Your task to perform on an android device: Set the phone to "Do not disturb". Image 0: 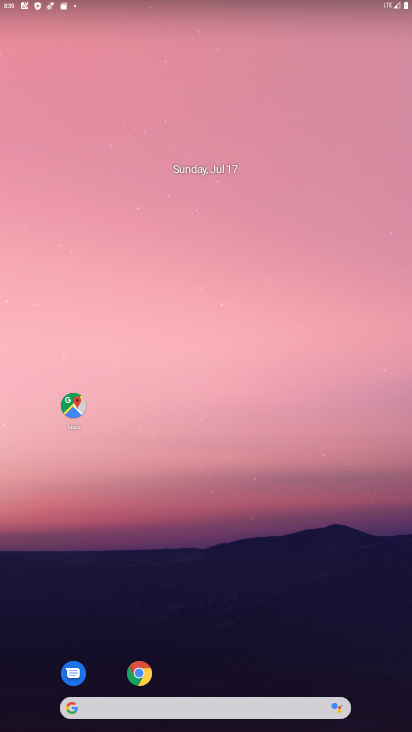
Step 0: drag from (364, 3) to (268, 556)
Your task to perform on an android device: Set the phone to "Do not disturb". Image 1: 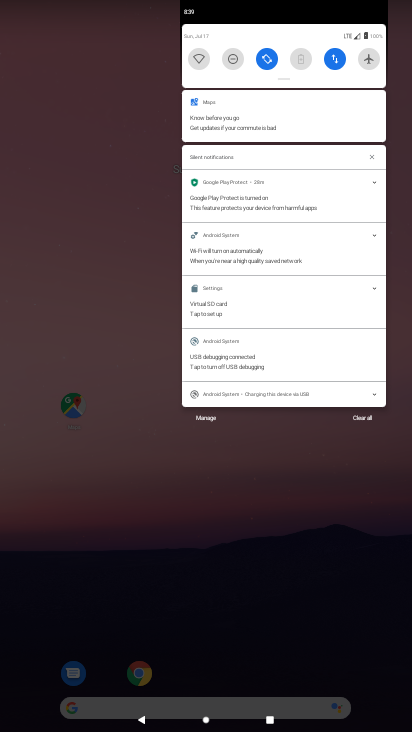
Step 1: click (233, 59)
Your task to perform on an android device: Set the phone to "Do not disturb". Image 2: 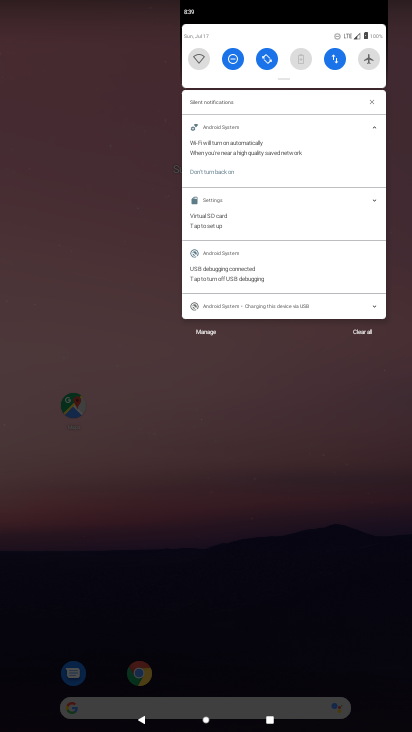
Step 2: task complete